Your task to perform on an android device: check android version Image 0: 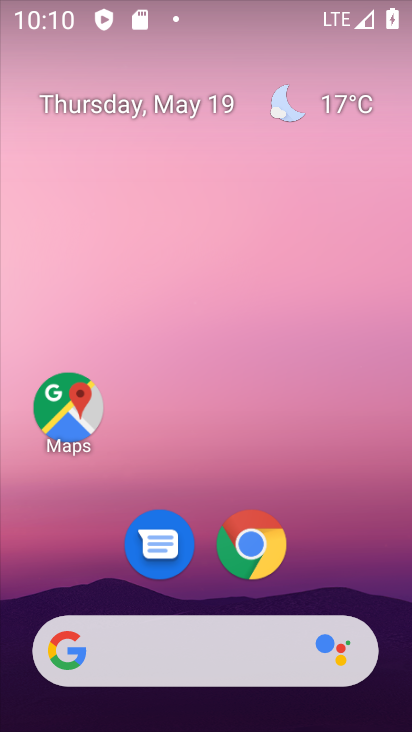
Step 0: drag from (214, 717) to (391, 39)
Your task to perform on an android device: check android version Image 1: 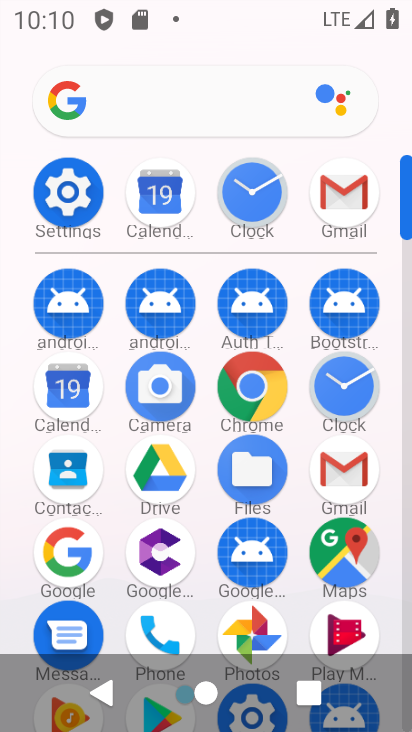
Step 1: click (51, 174)
Your task to perform on an android device: check android version Image 2: 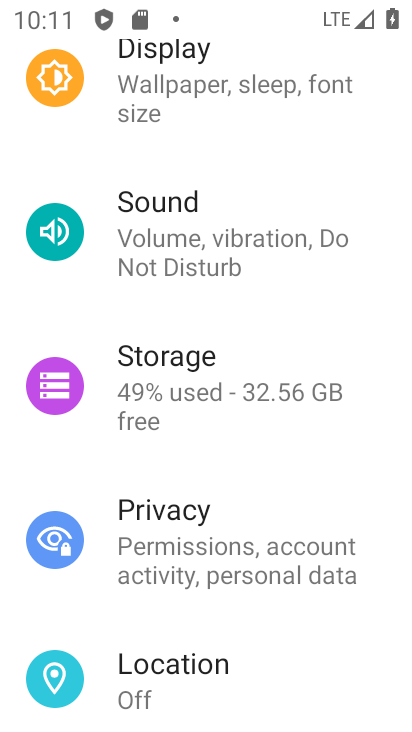
Step 2: drag from (192, 589) to (231, 189)
Your task to perform on an android device: check android version Image 3: 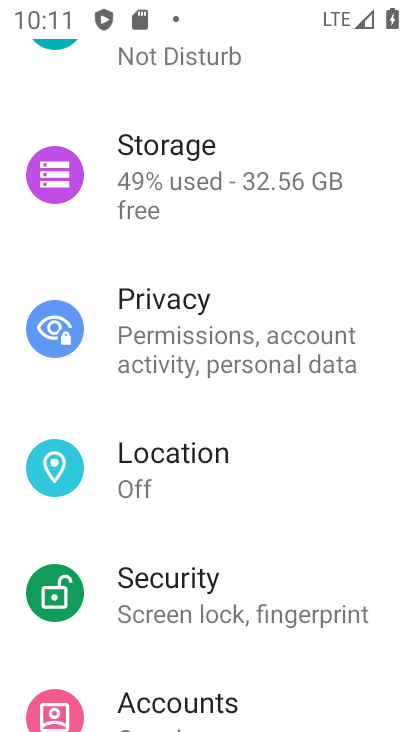
Step 3: drag from (262, 670) to (245, 227)
Your task to perform on an android device: check android version Image 4: 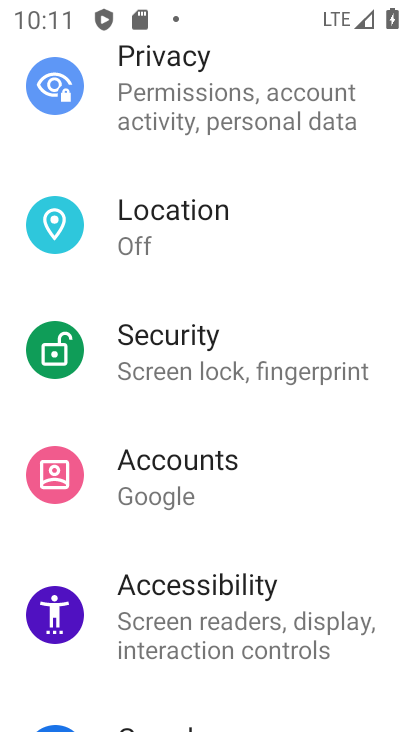
Step 4: drag from (319, 634) to (277, 207)
Your task to perform on an android device: check android version Image 5: 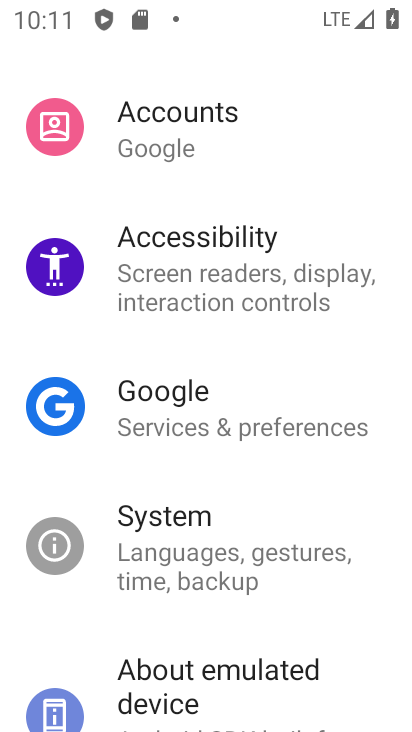
Step 5: drag from (310, 672) to (227, 280)
Your task to perform on an android device: check android version Image 6: 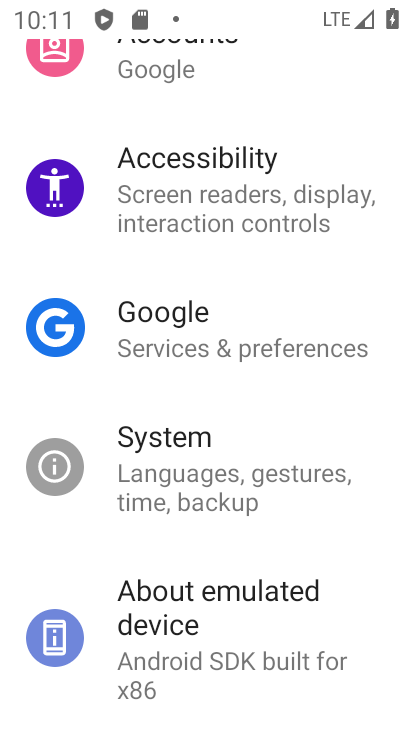
Step 6: click (238, 649)
Your task to perform on an android device: check android version Image 7: 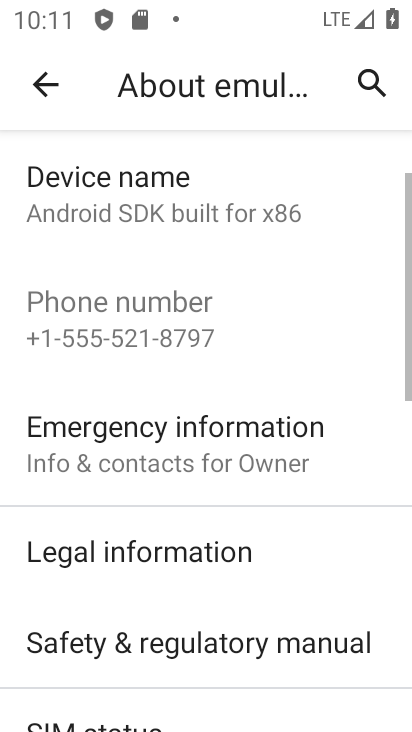
Step 7: task complete